Your task to perform on an android device: change the upload size in google photos Image 0: 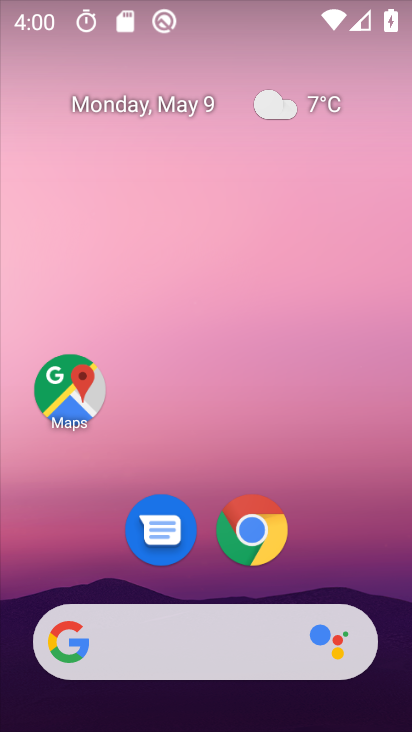
Step 0: drag from (184, 410) to (190, 100)
Your task to perform on an android device: change the upload size in google photos Image 1: 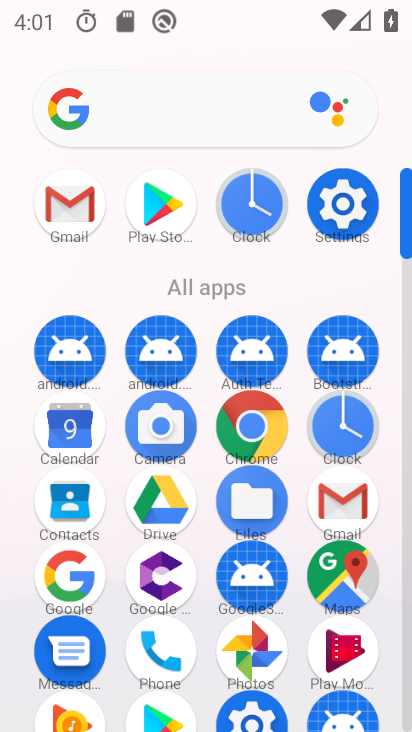
Step 1: click (265, 635)
Your task to perform on an android device: change the upload size in google photos Image 2: 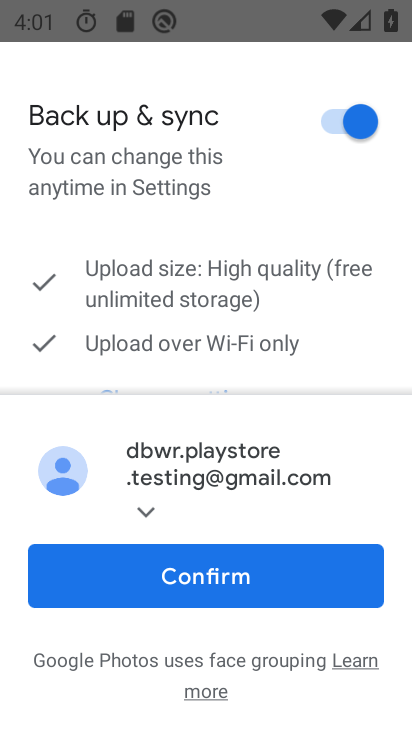
Step 2: click (197, 576)
Your task to perform on an android device: change the upload size in google photos Image 3: 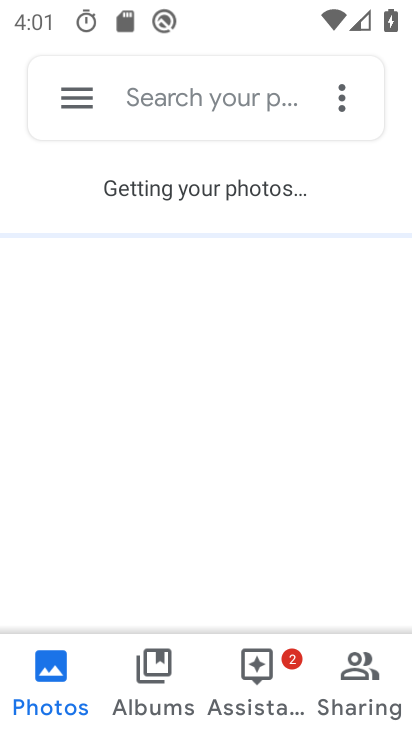
Step 3: click (85, 94)
Your task to perform on an android device: change the upload size in google photos Image 4: 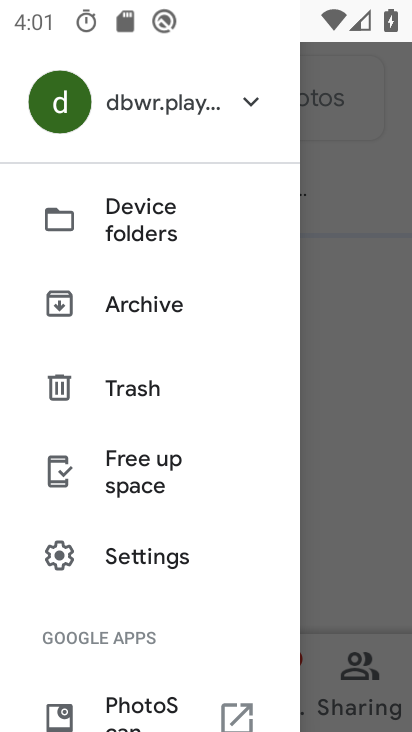
Step 4: click (135, 562)
Your task to perform on an android device: change the upload size in google photos Image 5: 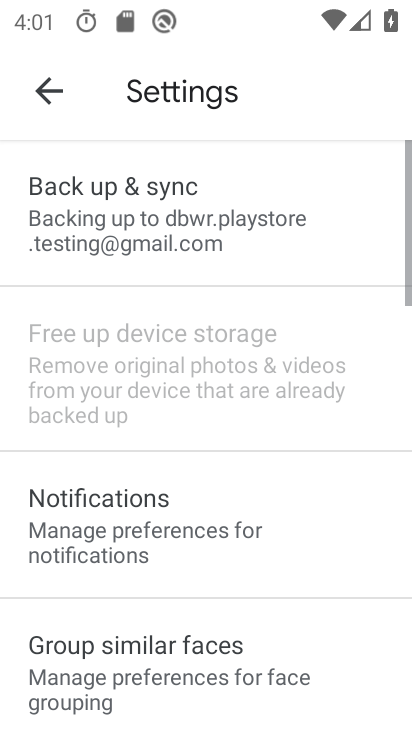
Step 5: click (146, 209)
Your task to perform on an android device: change the upload size in google photos Image 6: 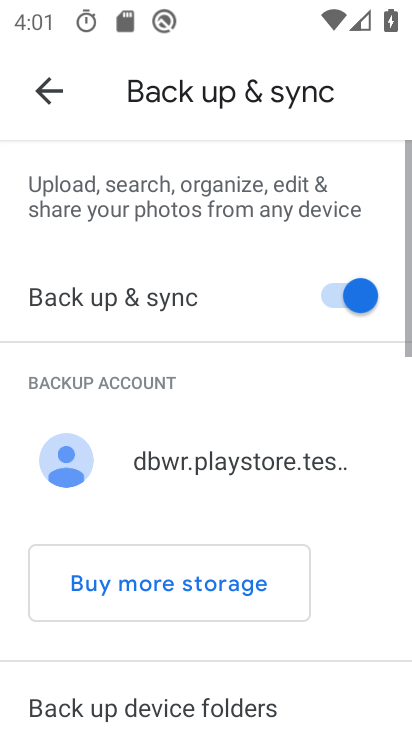
Step 6: drag from (214, 630) to (248, 134)
Your task to perform on an android device: change the upload size in google photos Image 7: 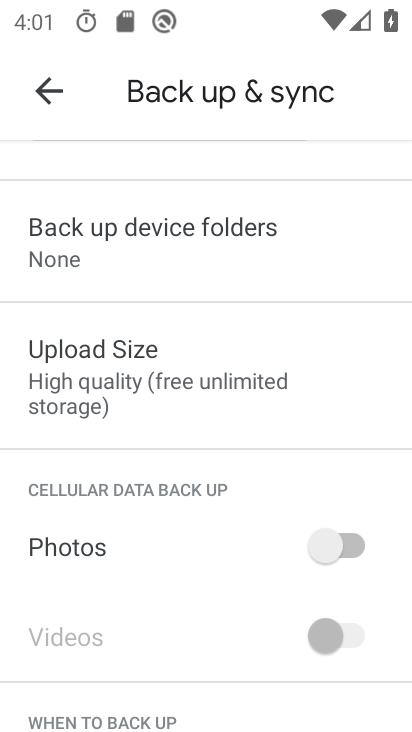
Step 7: click (203, 370)
Your task to perform on an android device: change the upload size in google photos Image 8: 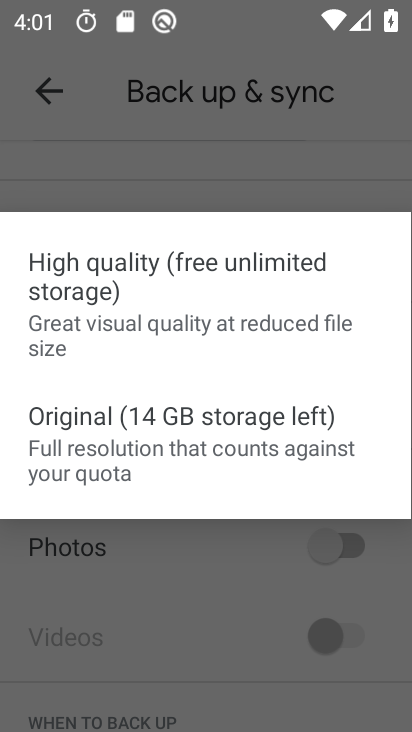
Step 8: click (80, 459)
Your task to perform on an android device: change the upload size in google photos Image 9: 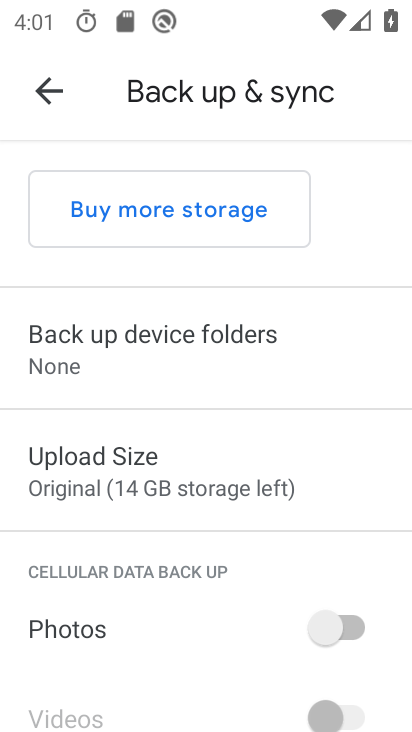
Step 9: task complete